Your task to perform on an android device: change timer sound Image 0: 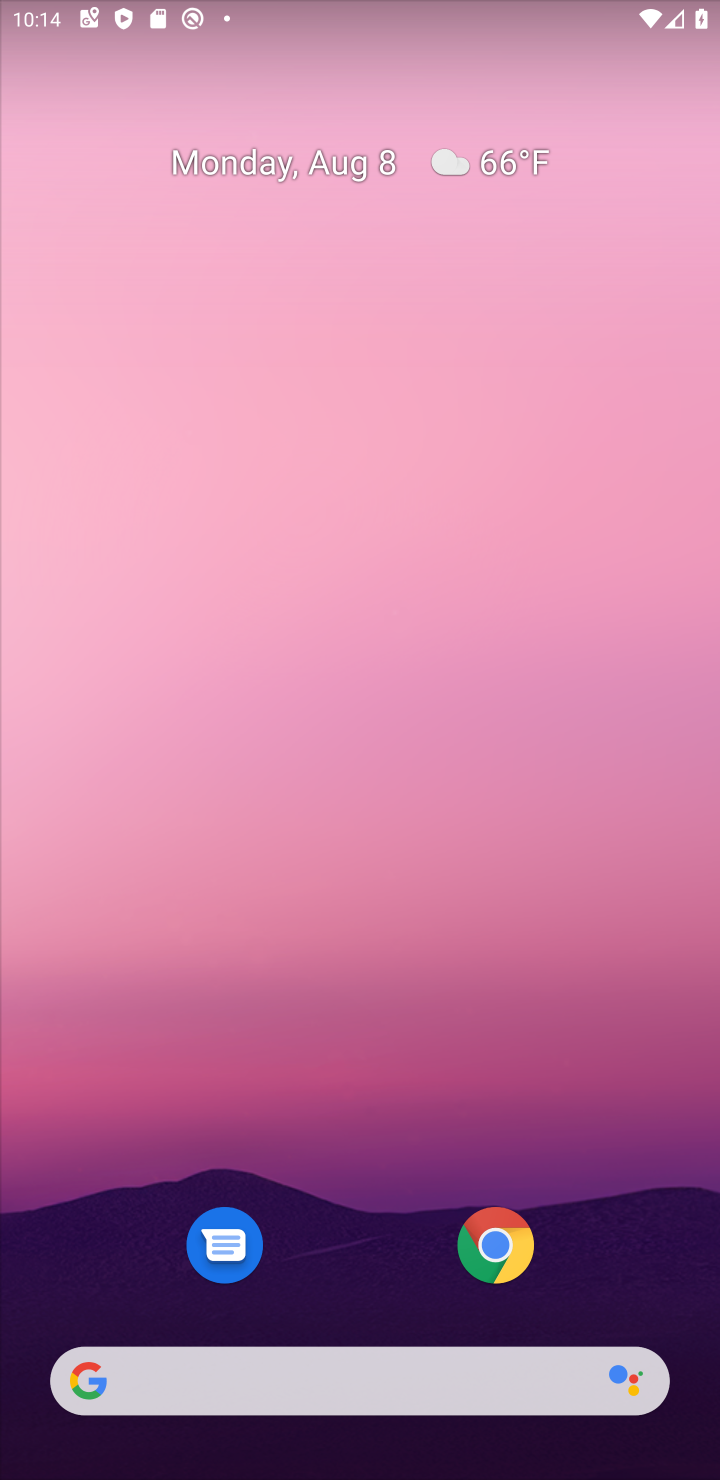
Step 0: drag from (326, 129) to (326, 38)
Your task to perform on an android device: change timer sound Image 1: 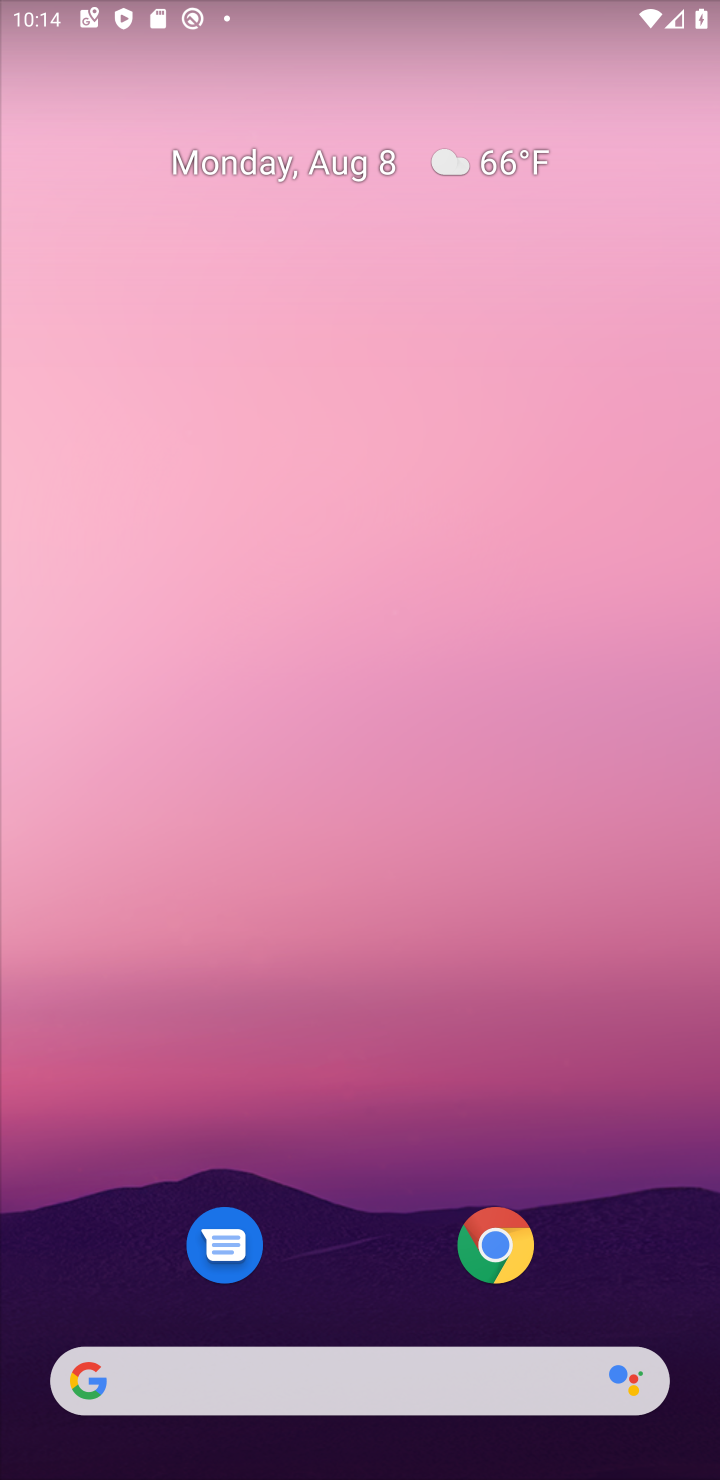
Step 1: drag from (357, 1156) to (336, 114)
Your task to perform on an android device: change timer sound Image 2: 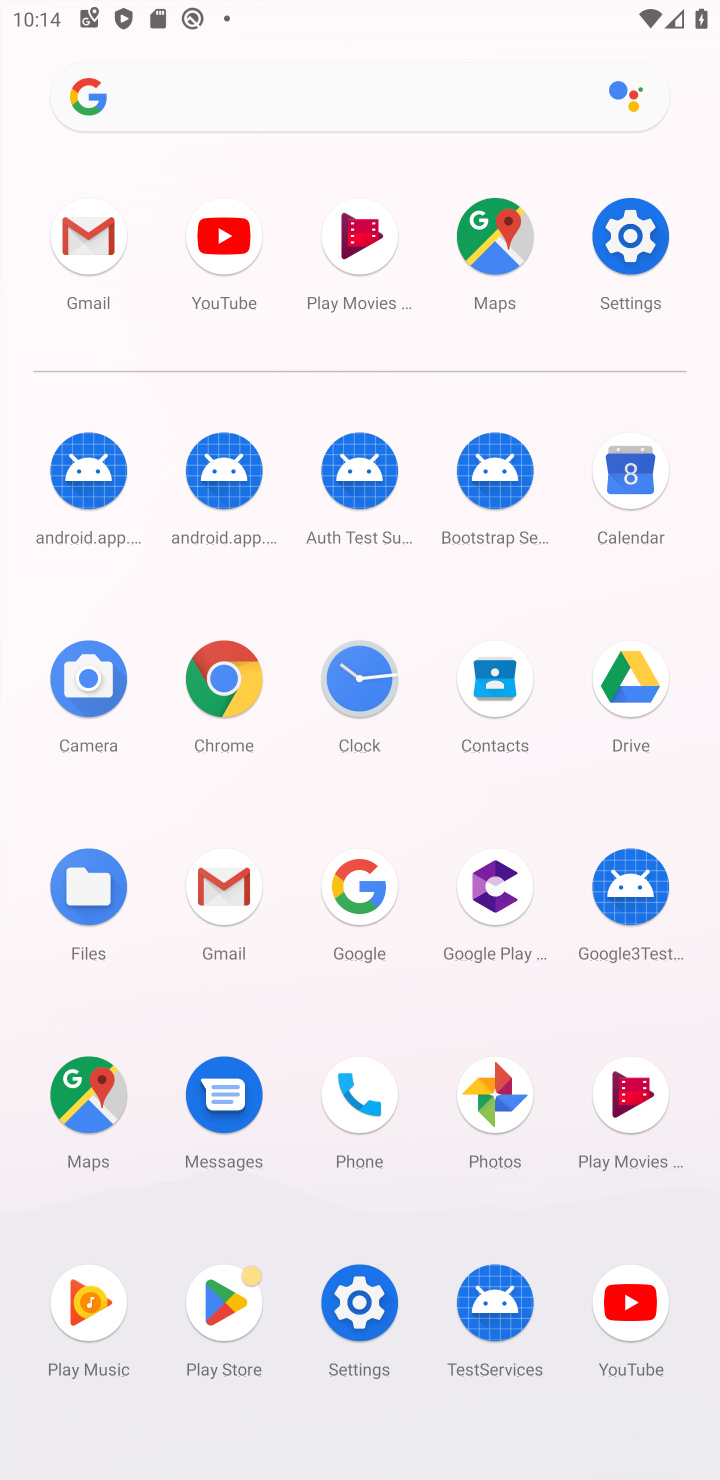
Step 2: click (377, 671)
Your task to perform on an android device: change timer sound Image 3: 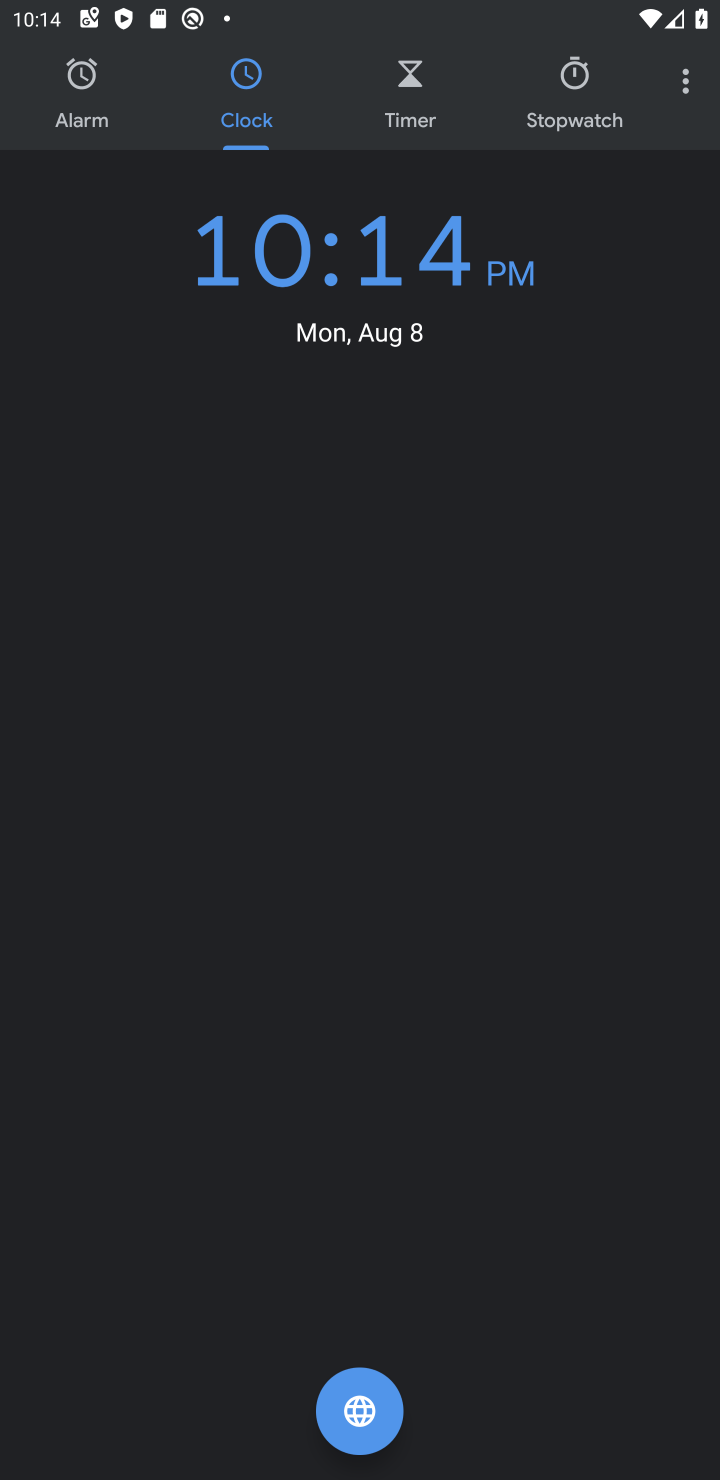
Step 3: click (683, 86)
Your task to perform on an android device: change timer sound Image 4: 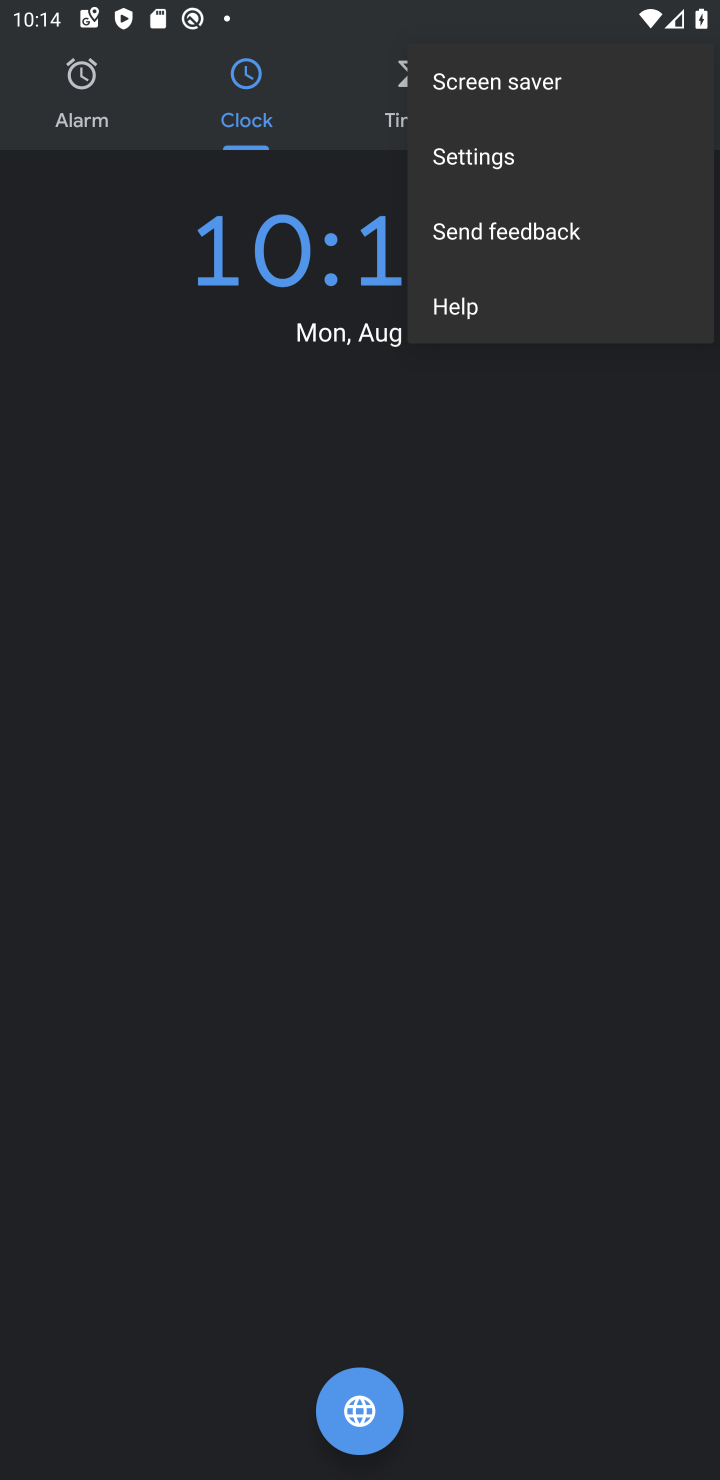
Step 4: click (496, 145)
Your task to perform on an android device: change timer sound Image 5: 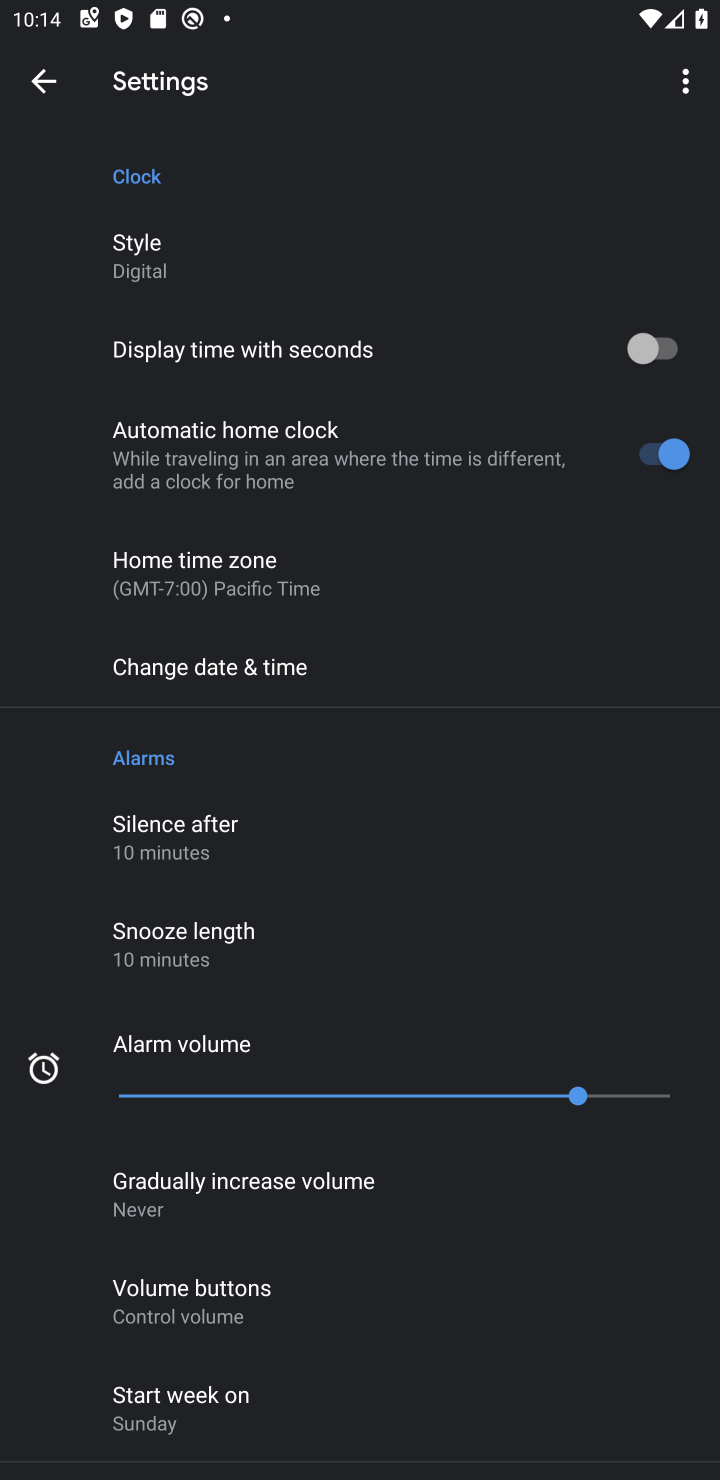
Step 5: drag from (418, 1323) to (428, 509)
Your task to perform on an android device: change timer sound Image 6: 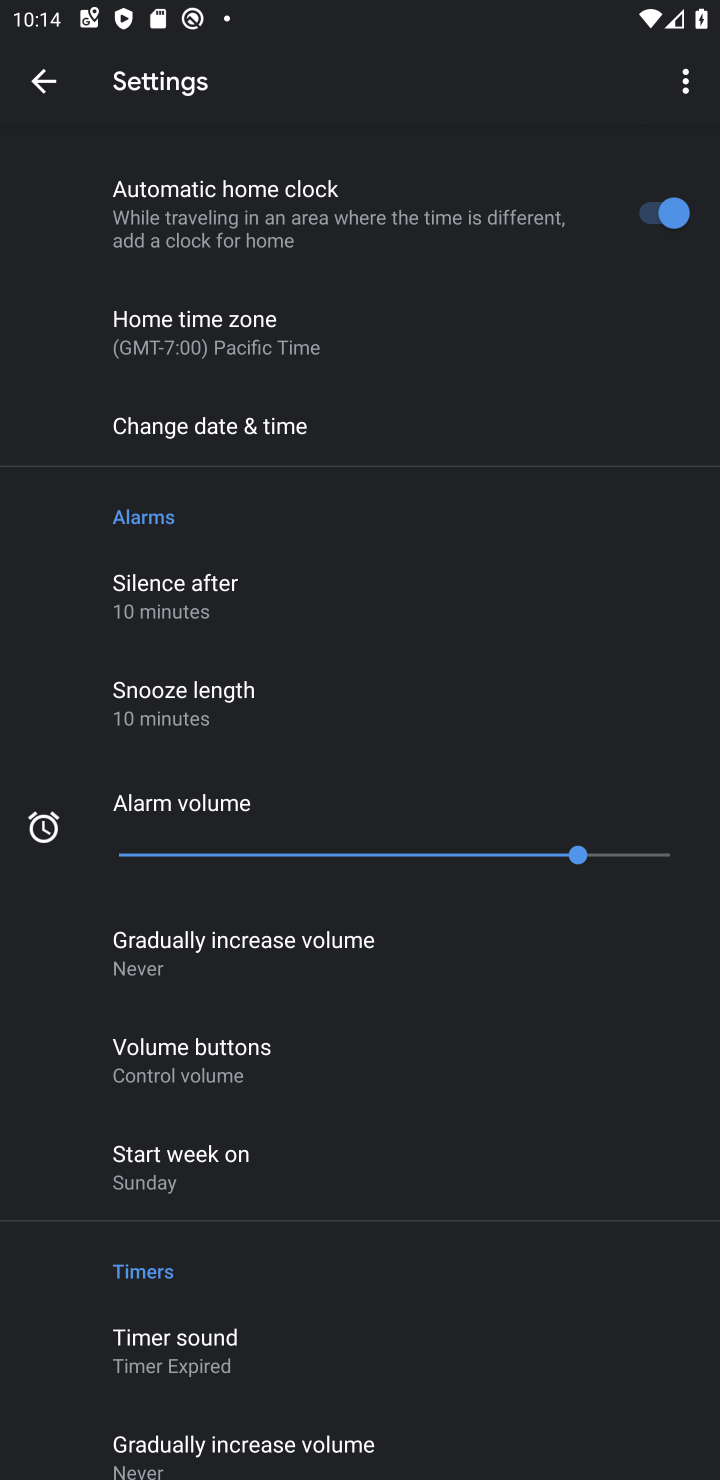
Step 6: click (147, 1348)
Your task to perform on an android device: change timer sound Image 7: 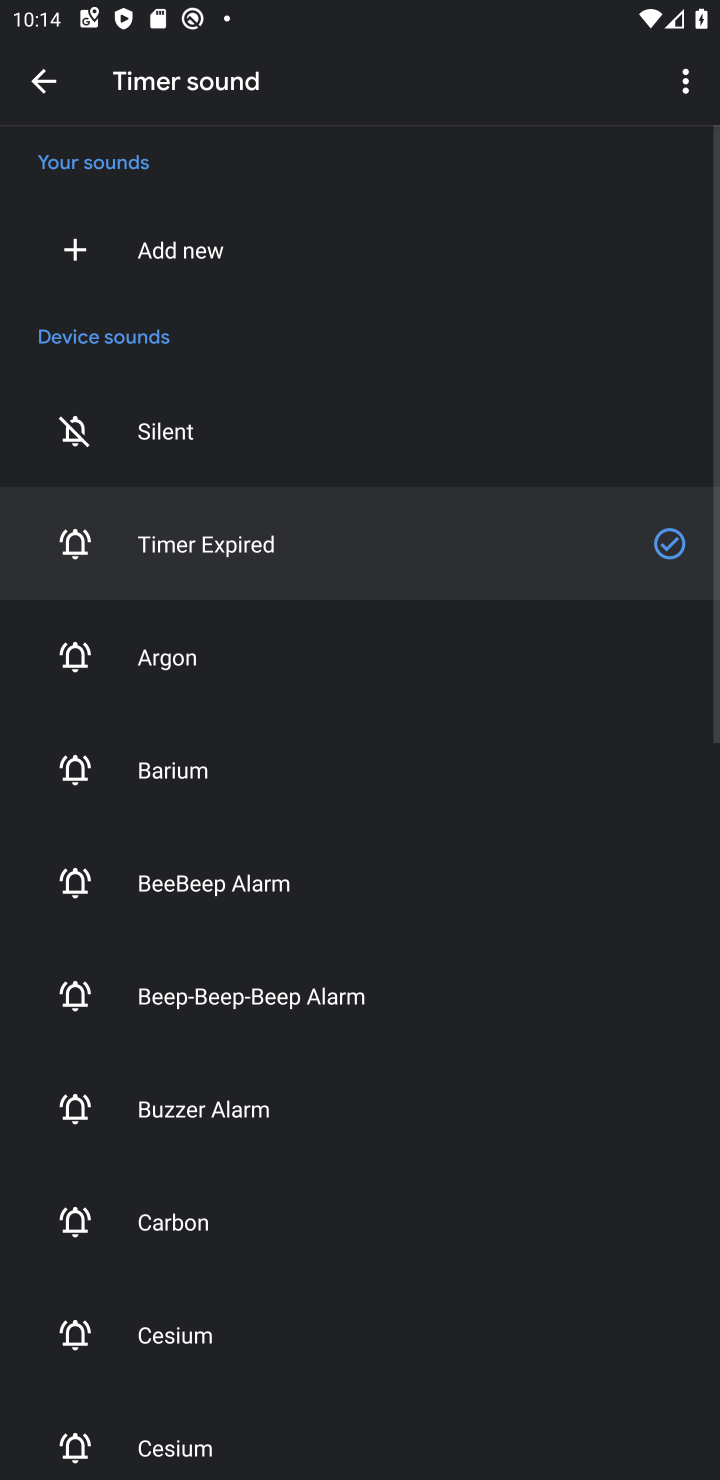
Step 7: click (168, 678)
Your task to perform on an android device: change timer sound Image 8: 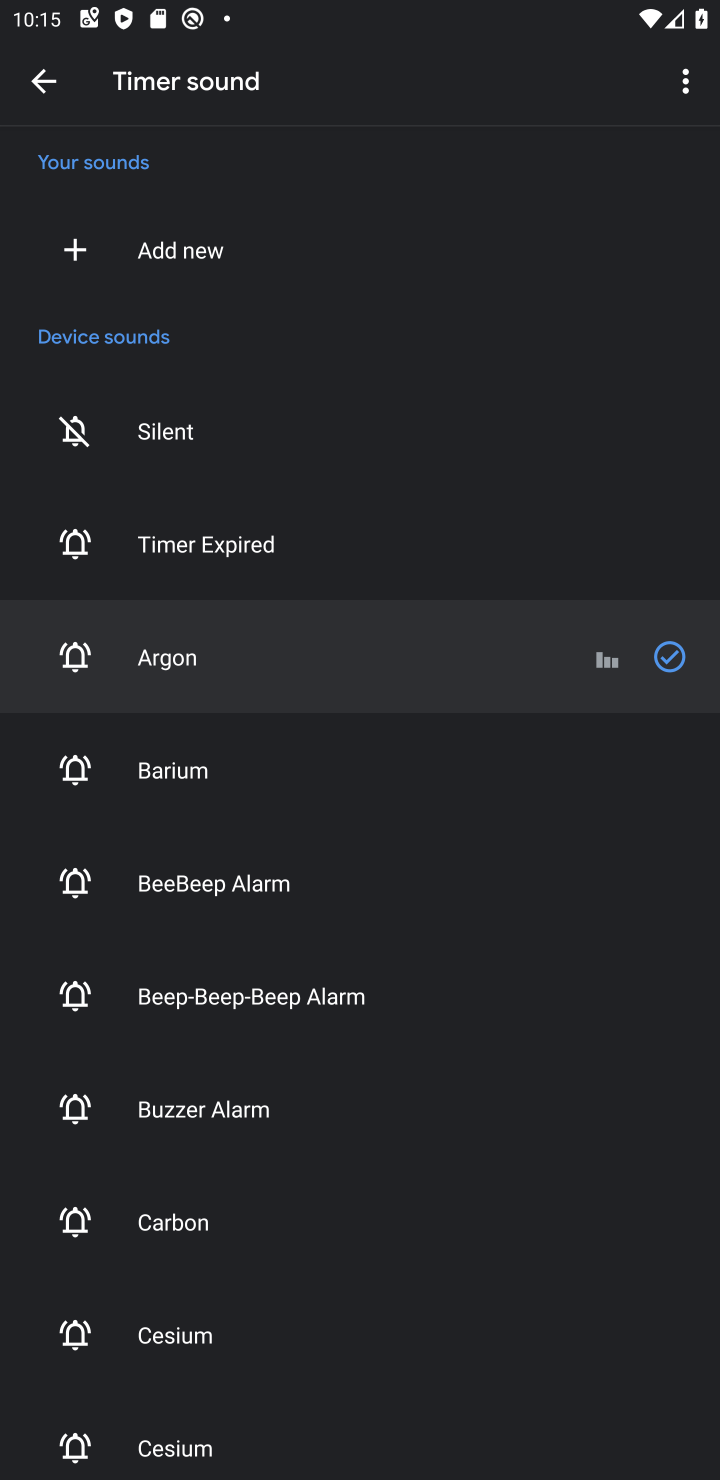
Step 8: task complete